Your task to perform on an android device: Go to network settings Image 0: 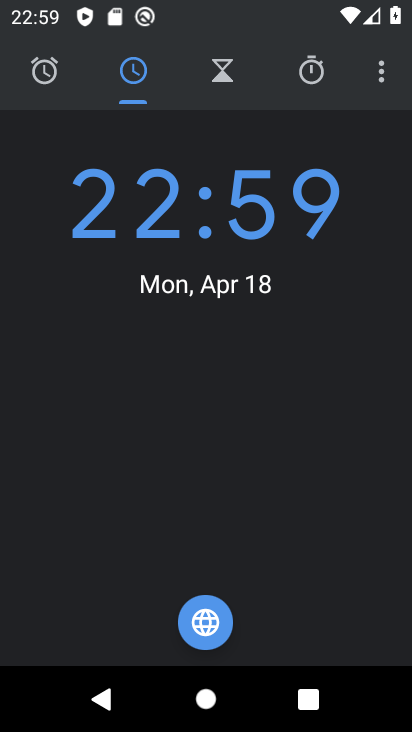
Step 0: press home button
Your task to perform on an android device: Go to network settings Image 1: 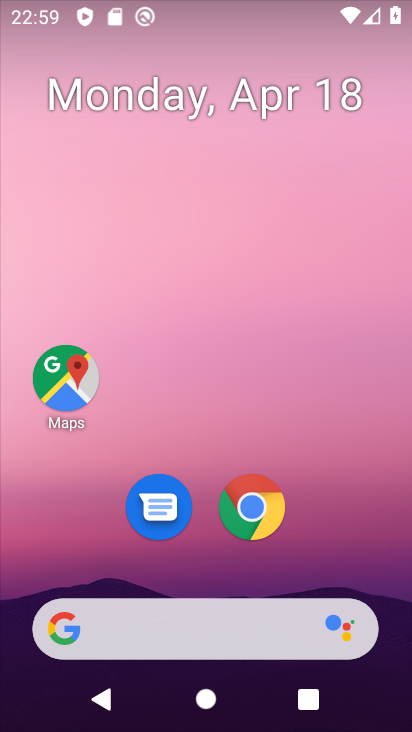
Step 1: drag from (314, 505) to (354, 111)
Your task to perform on an android device: Go to network settings Image 2: 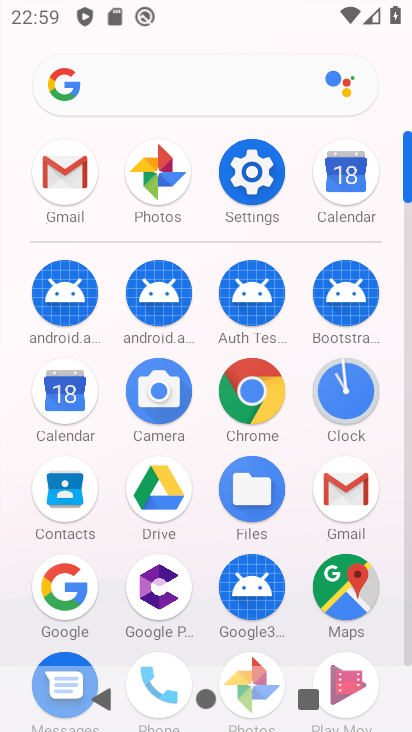
Step 2: click (258, 178)
Your task to perform on an android device: Go to network settings Image 3: 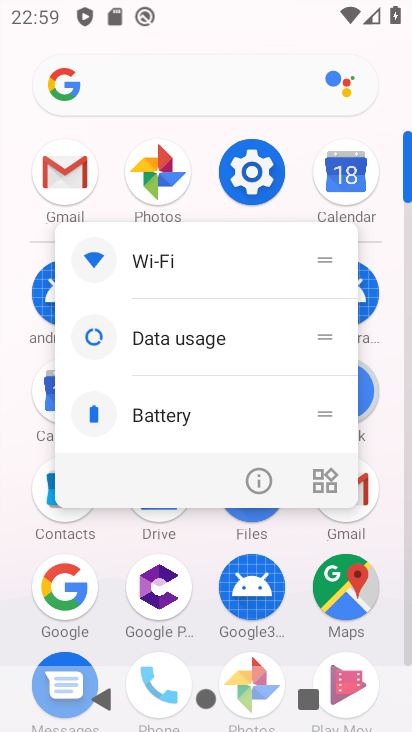
Step 3: click (258, 178)
Your task to perform on an android device: Go to network settings Image 4: 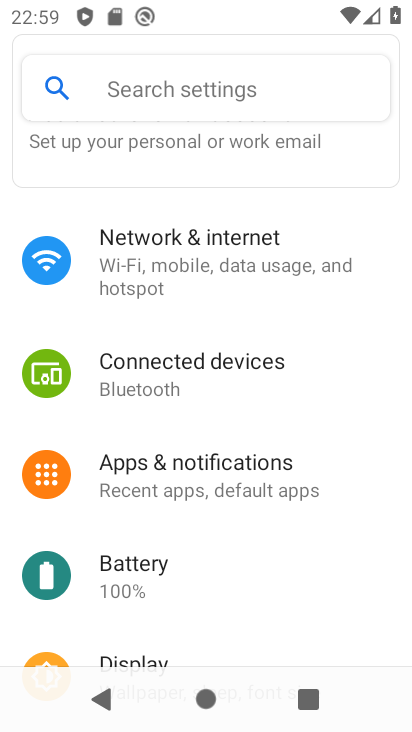
Step 4: click (238, 250)
Your task to perform on an android device: Go to network settings Image 5: 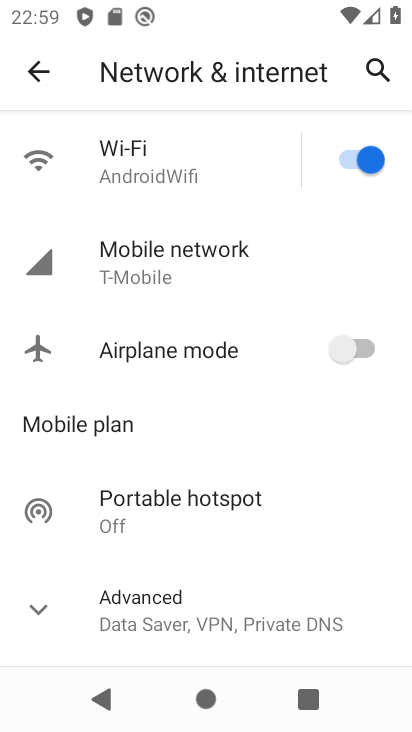
Step 5: task complete